Your task to perform on an android device: Open Amazon Image 0: 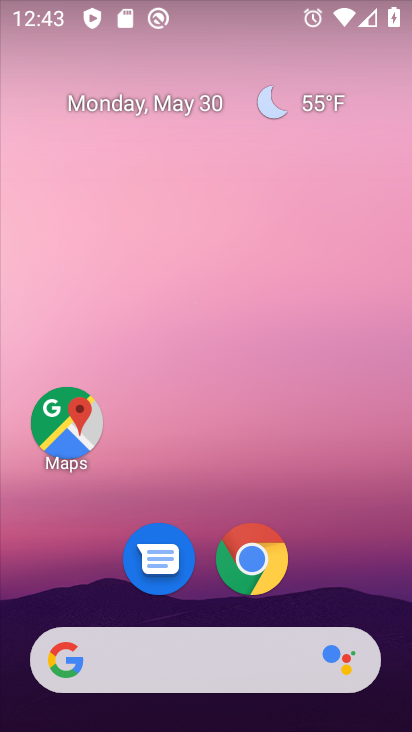
Step 0: click (242, 553)
Your task to perform on an android device: Open Amazon Image 1: 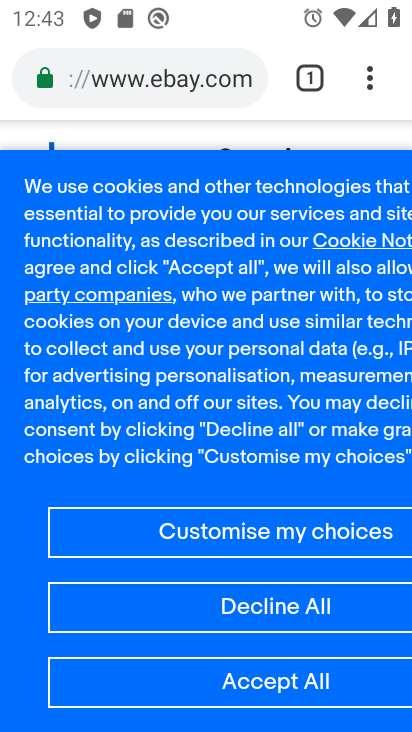
Step 1: click (313, 72)
Your task to perform on an android device: Open Amazon Image 2: 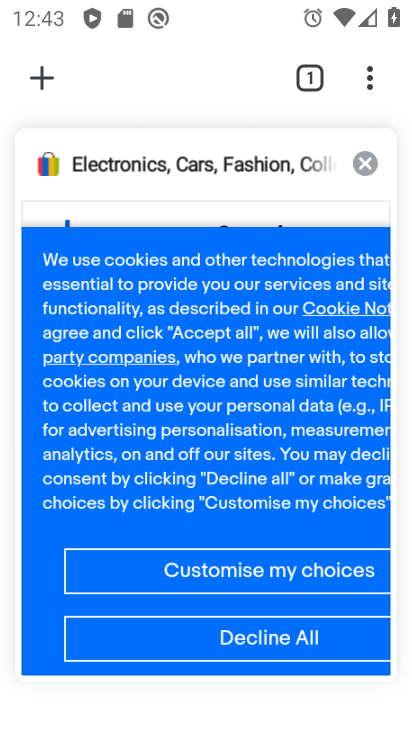
Step 2: click (7, 87)
Your task to perform on an android device: Open Amazon Image 3: 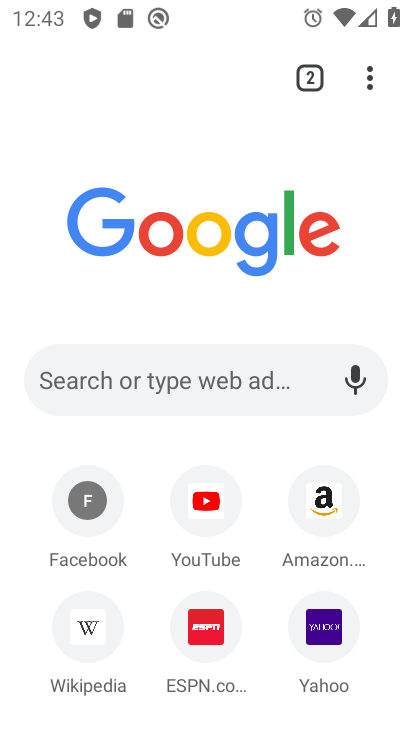
Step 3: click (343, 521)
Your task to perform on an android device: Open Amazon Image 4: 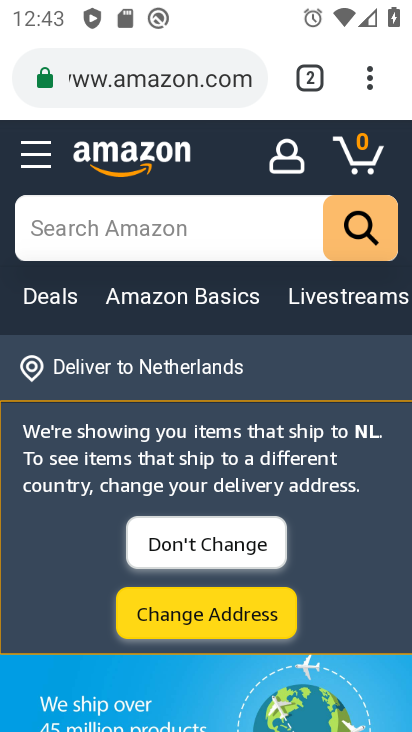
Step 4: task complete